Your task to perform on an android device: see creations saved in the google photos Image 0: 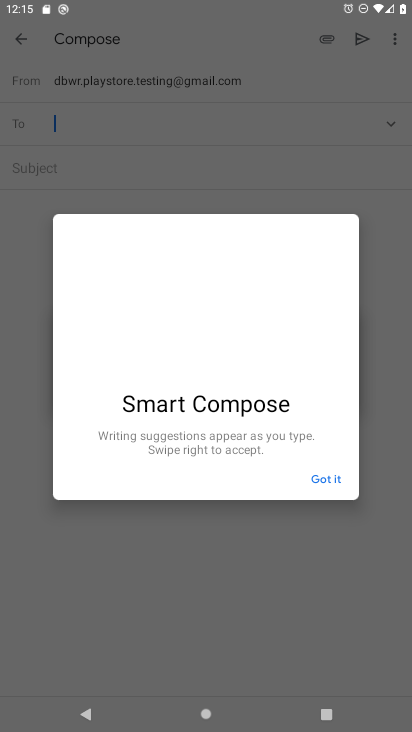
Step 0: press home button
Your task to perform on an android device: see creations saved in the google photos Image 1: 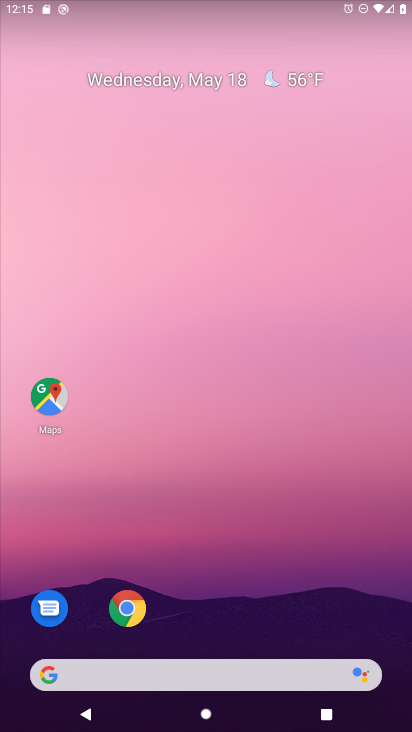
Step 1: drag from (276, 690) to (375, 158)
Your task to perform on an android device: see creations saved in the google photos Image 2: 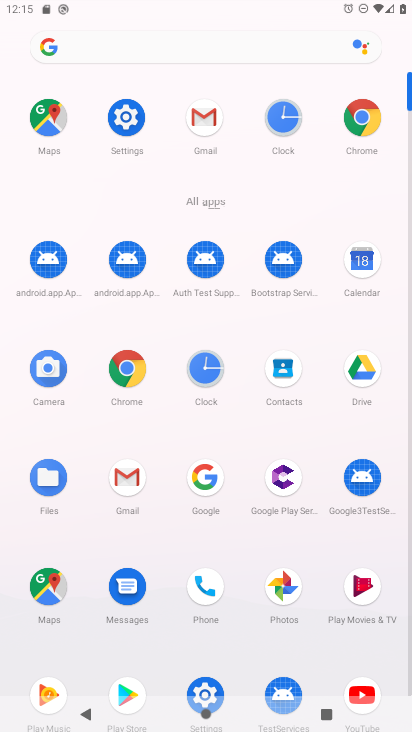
Step 2: click (274, 588)
Your task to perform on an android device: see creations saved in the google photos Image 3: 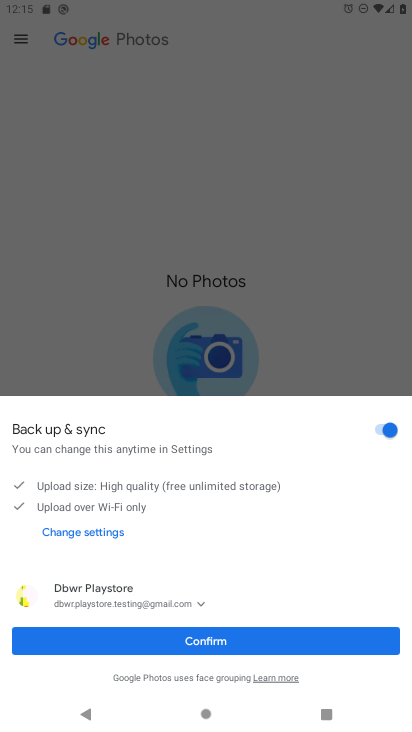
Step 3: click (147, 645)
Your task to perform on an android device: see creations saved in the google photos Image 4: 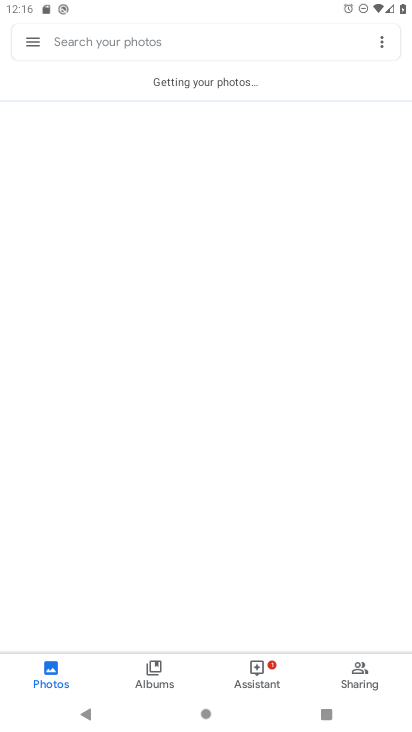
Step 4: click (156, 677)
Your task to perform on an android device: see creations saved in the google photos Image 5: 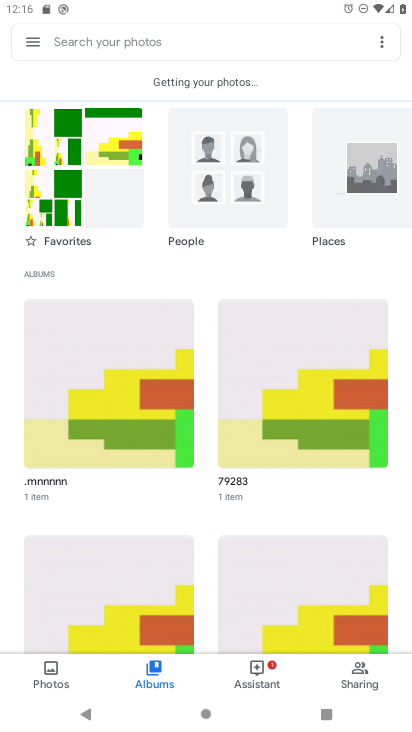
Step 5: click (56, 677)
Your task to perform on an android device: see creations saved in the google photos Image 6: 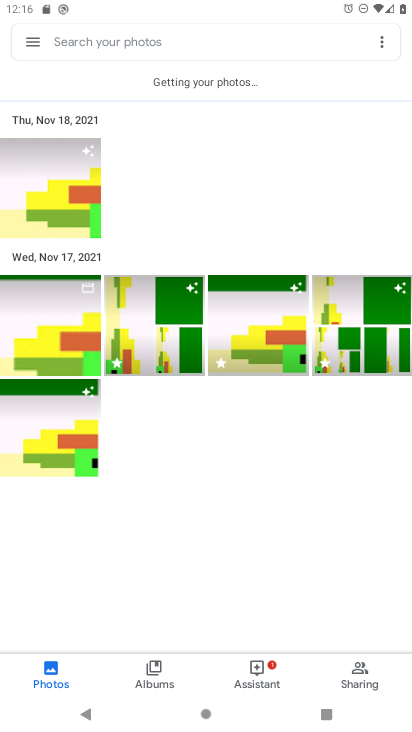
Step 6: click (62, 192)
Your task to perform on an android device: see creations saved in the google photos Image 7: 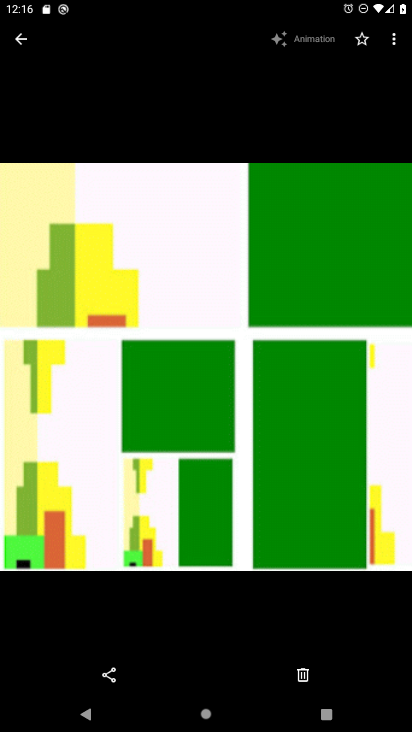
Step 7: click (383, 53)
Your task to perform on an android device: see creations saved in the google photos Image 8: 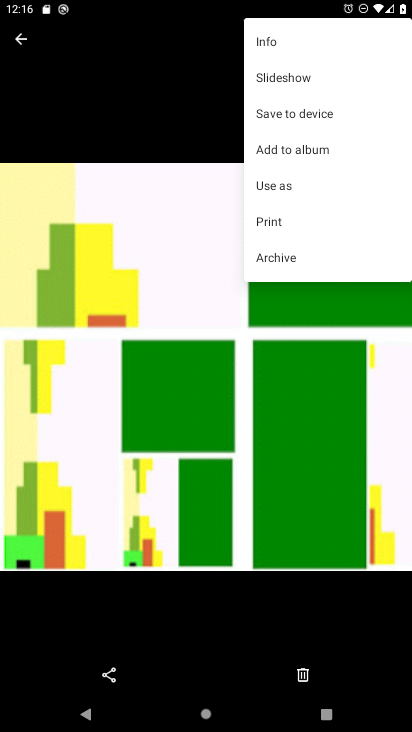
Step 8: click (277, 113)
Your task to perform on an android device: see creations saved in the google photos Image 9: 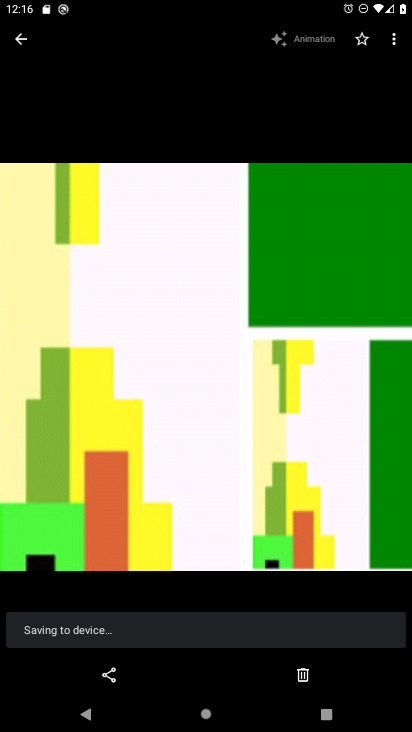
Step 9: task complete